Your task to perform on an android device: Go to Google Image 0: 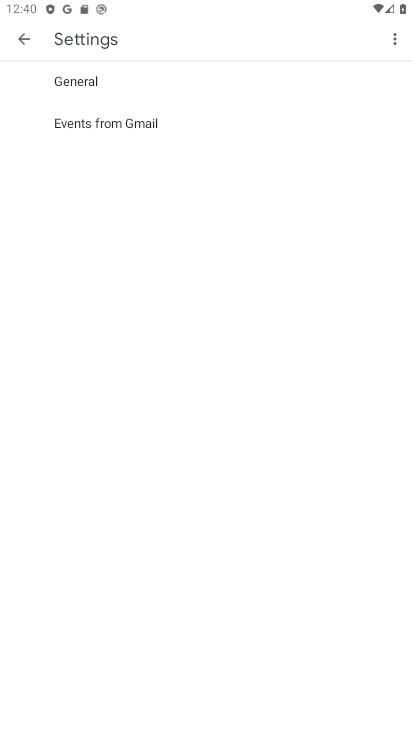
Step 0: press home button
Your task to perform on an android device: Go to Google Image 1: 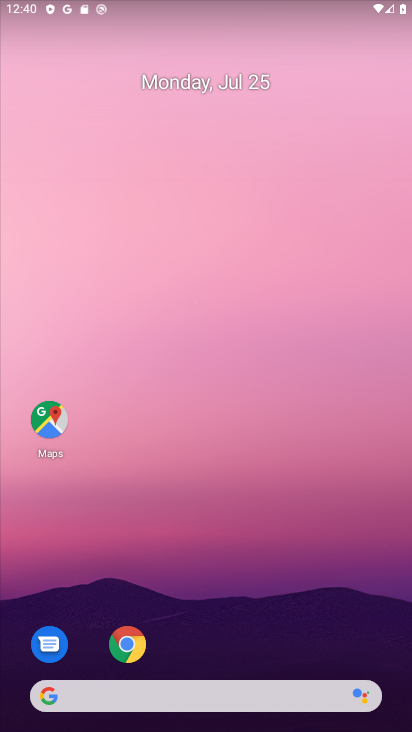
Step 1: drag from (254, 647) to (172, 5)
Your task to perform on an android device: Go to Google Image 2: 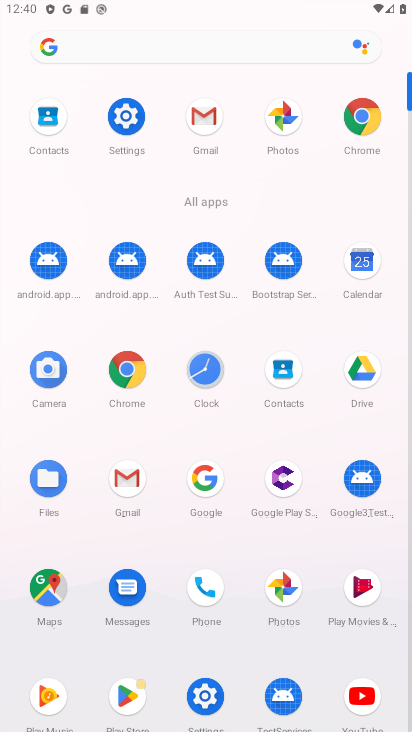
Step 2: click (199, 484)
Your task to perform on an android device: Go to Google Image 3: 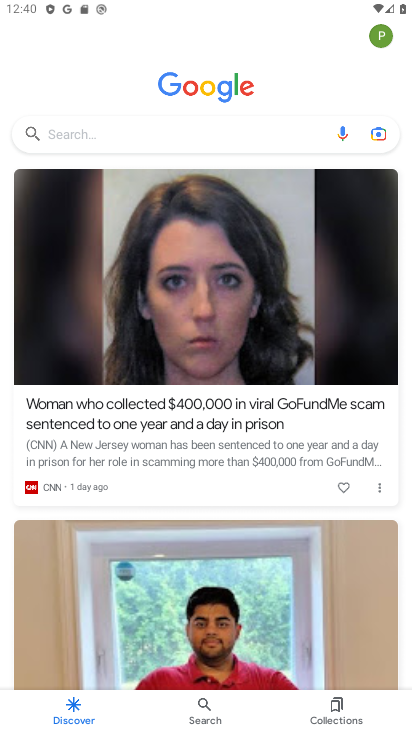
Step 3: task complete